Your task to perform on an android device: Open Google Maps Image 0: 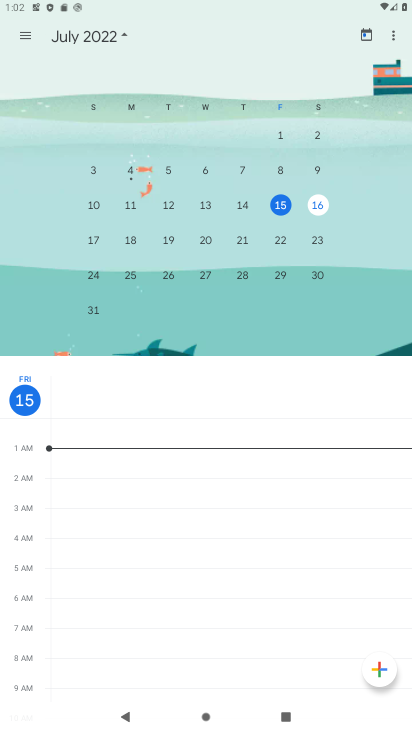
Step 0: press home button
Your task to perform on an android device: Open Google Maps Image 1: 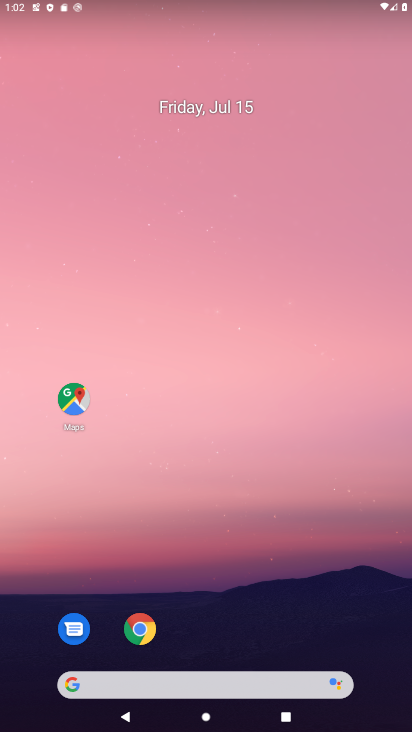
Step 1: drag from (252, 591) to (188, 129)
Your task to perform on an android device: Open Google Maps Image 2: 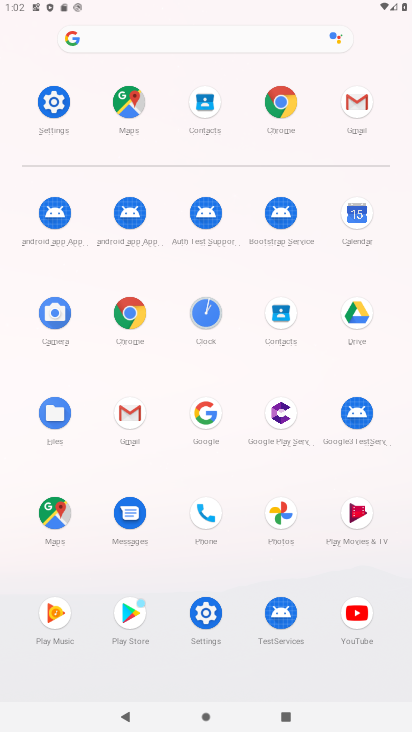
Step 2: click (127, 112)
Your task to perform on an android device: Open Google Maps Image 3: 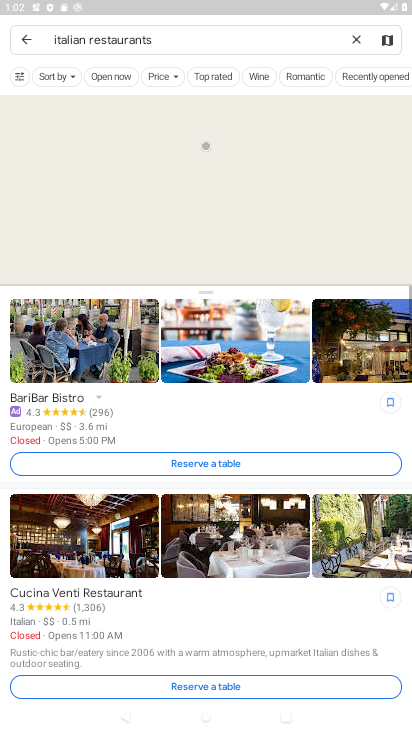
Step 3: task complete